Your task to perform on an android device: change notification settings in the gmail app Image 0: 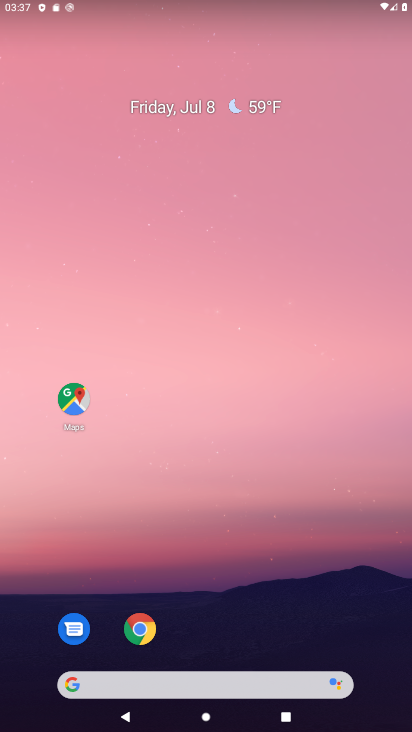
Step 0: press home button
Your task to perform on an android device: change notification settings in the gmail app Image 1: 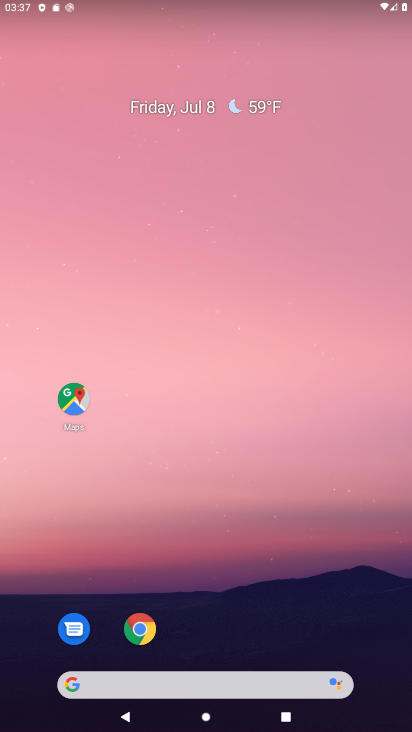
Step 1: click (218, 86)
Your task to perform on an android device: change notification settings in the gmail app Image 2: 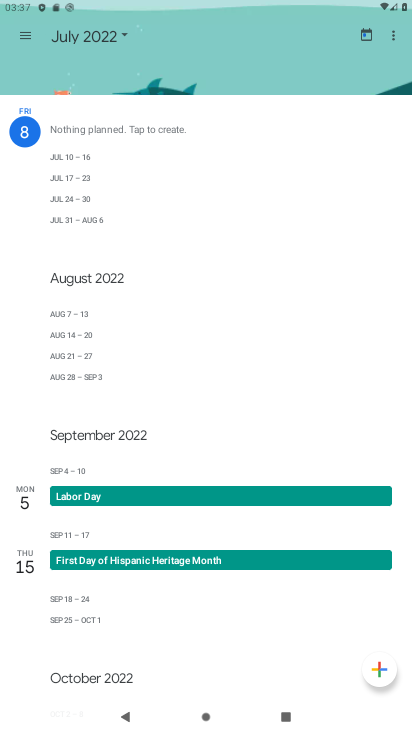
Step 2: press home button
Your task to perform on an android device: change notification settings in the gmail app Image 3: 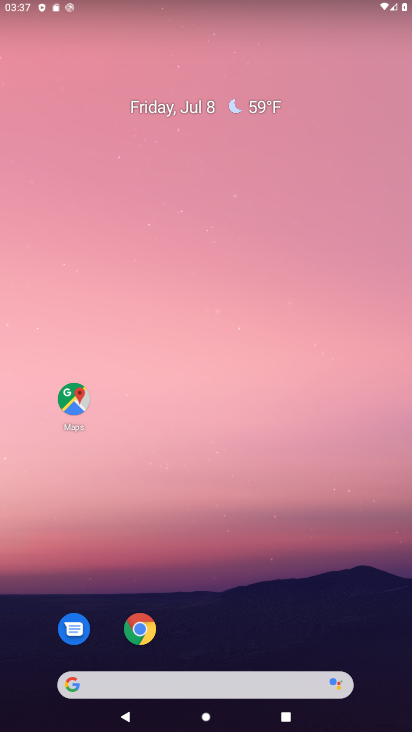
Step 3: drag from (219, 650) to (217, 33)
Your task to perform on an android device: change notification settings in the gmail app Image 4: 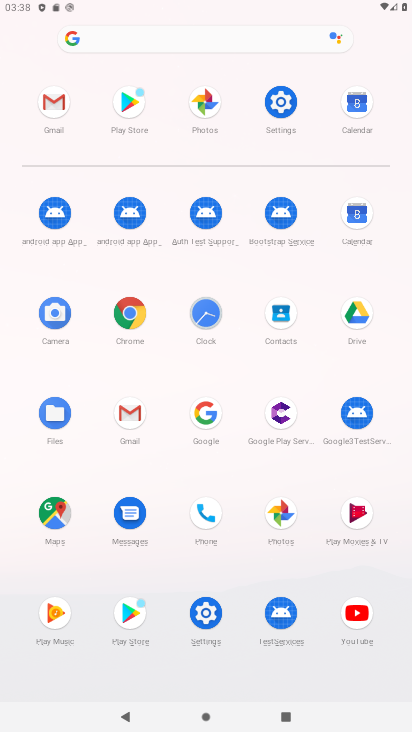
Step 4: click (131, 405)
Your task to perform on an android device: change notification settings in the gmail app Image 5: 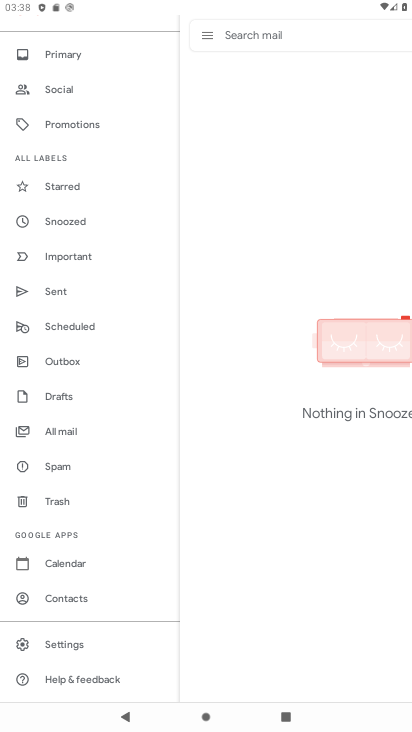
Step 5: click (90, 634)
Your task to perform on an android device: change notification settings in the gmail app Image 6: 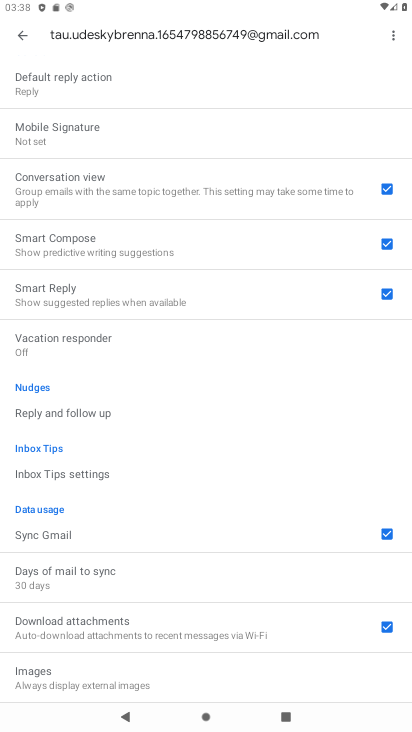
Step 6: click (20, 30)
Your task to perform on an android device: change notification settings in the gmail app Image 7: 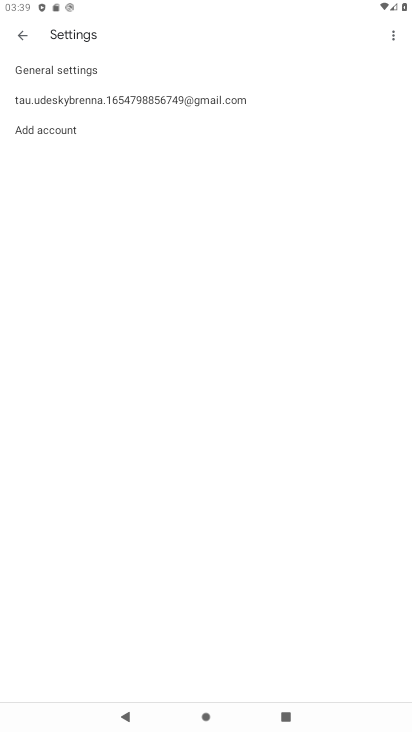
Step 7: click (83, 69)
Your task to perform on an android device: change notification settings in the gmail app Image 8: 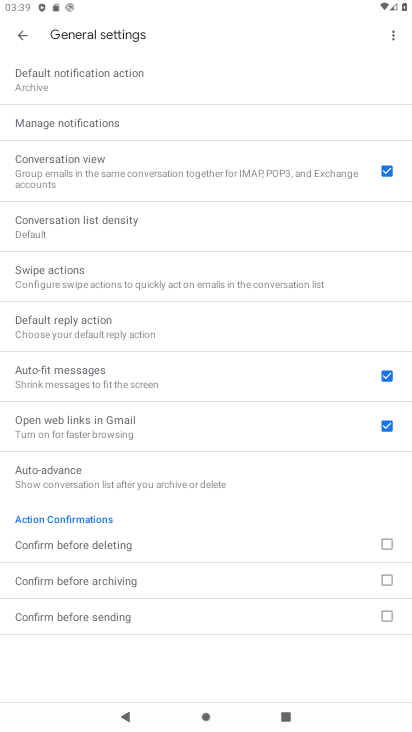
Step 8: click (122, 120)
Your task to perform on an android device: change notification settings in the gmail app Image 9: 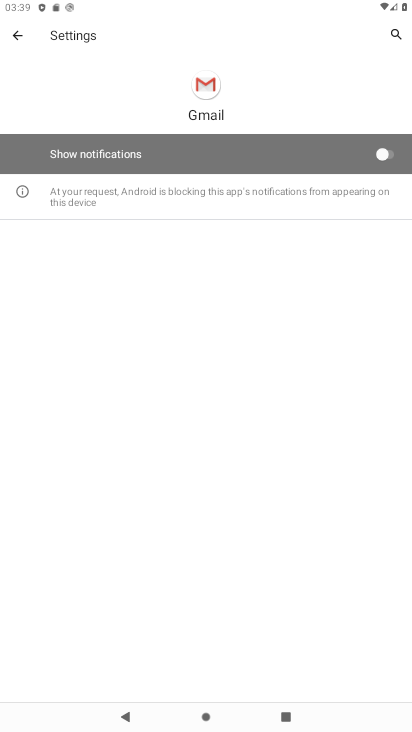
Step 9: click (381, 150)
Your task to perform on an android device: change notification settings in the gmail app Image 10: 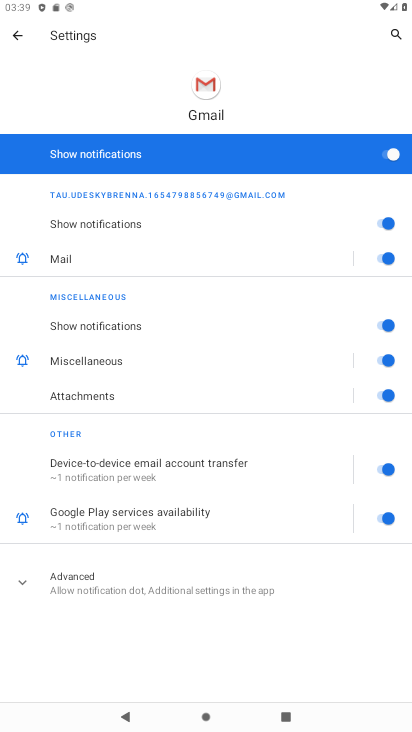
Step 10: task complete